Your task to perform on an android device: Open Google Maps and go to "Timeline" Image 0: 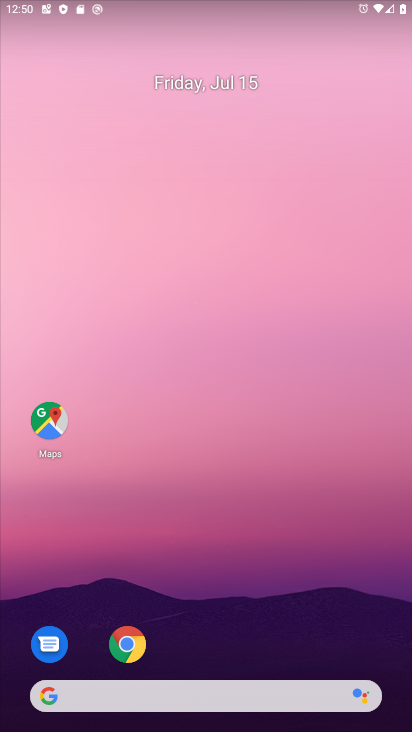
Step 0: drag from (354, 649) to (235, 51)
Your task to perform on an android device: Open Google Maps and go to "Timeline" Image 1: 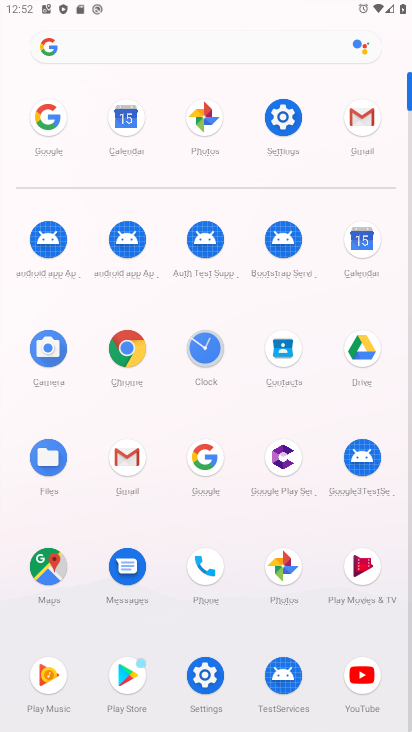
Step 1: click (36, 565)
Your task to perform on an android device: Open Google Maps and go to "Timeline" Image 2: 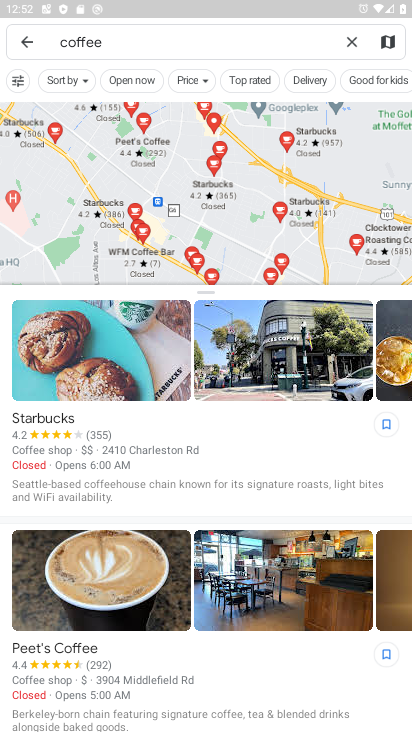
Step 2: click (348, 43)
Your task to perform on an android device: Open Google Maps and go to "Timeline" Image 3: 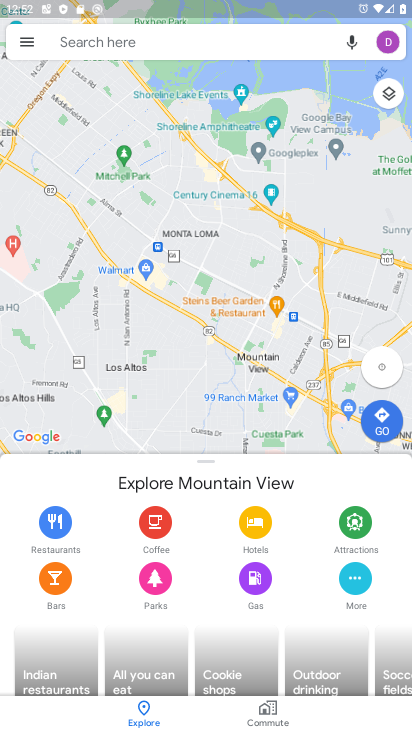
Step 3: click (26, 48)
Your task to perform on an android device: Open Google Maps and go to "Timeline" Image 4: 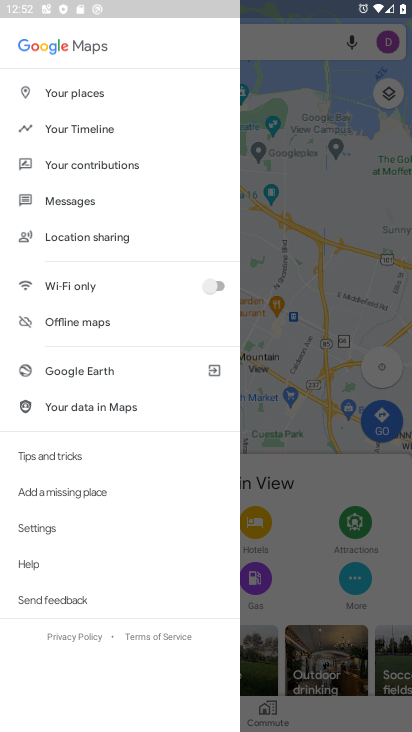
Step 4: click (101, 128)
Your task to perform on an android device: Open Google Maps and go to "Timeline" Image 5: 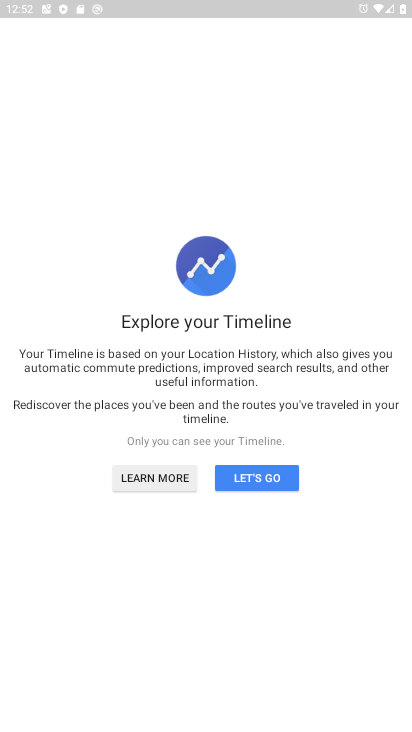
Step 5: task complete